Your task to perform on an android device: When is my next appointment? Image 0: 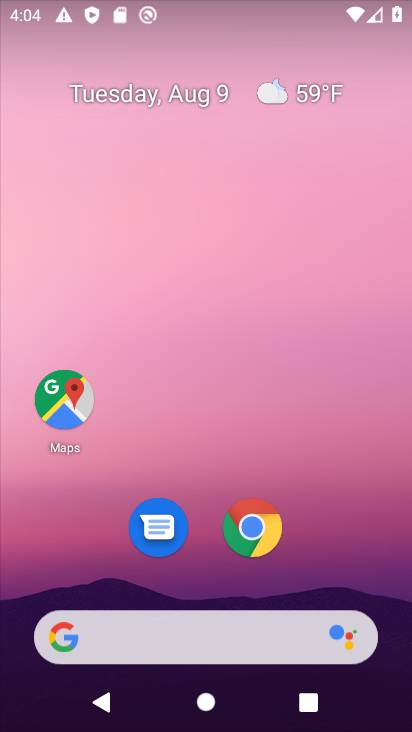
Step 0: click (92, 82)
Your task to perform on an android device: When is my next appointment? Image 1: 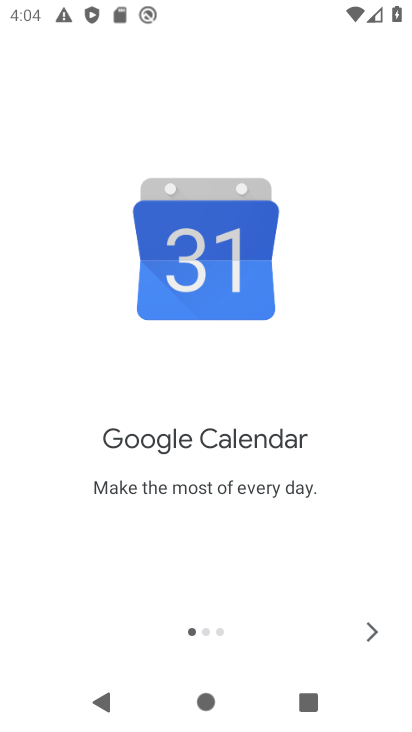
Step 1: click (368, 620)
Your task to perform on an android device: When is my next appointment? Image 2: 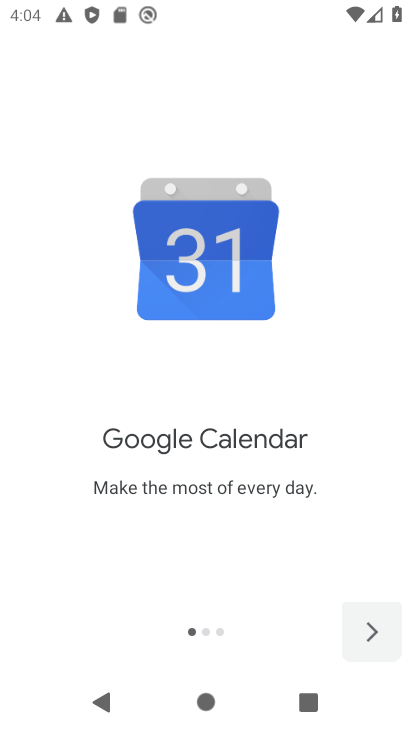
Step 2: click (368, 620)
Your task to perform on an android device: When is my next appointment? Image 3: 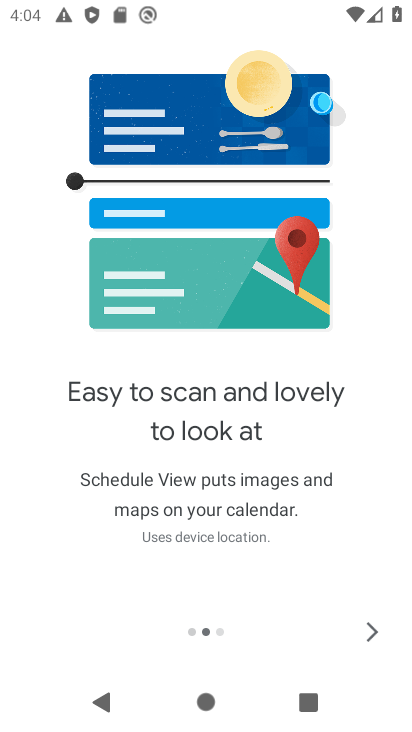
Step 3: click (368, 620)
Your task to perform on an android device: When is my next appointment? Image 4: 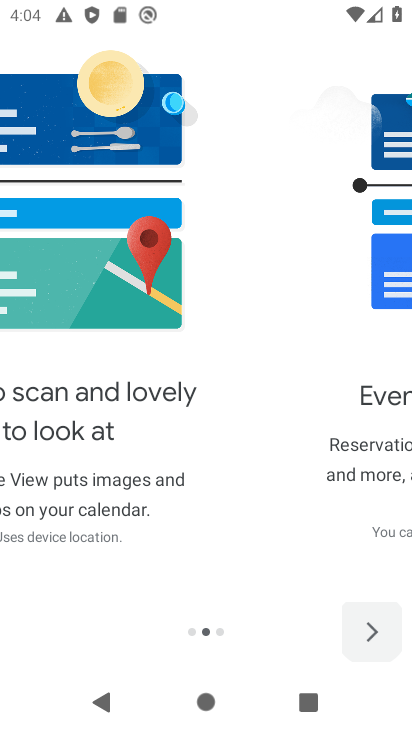
Step 4: click (368, 620)
Your task to perform on an android device: When is my next appointment? Image 5: 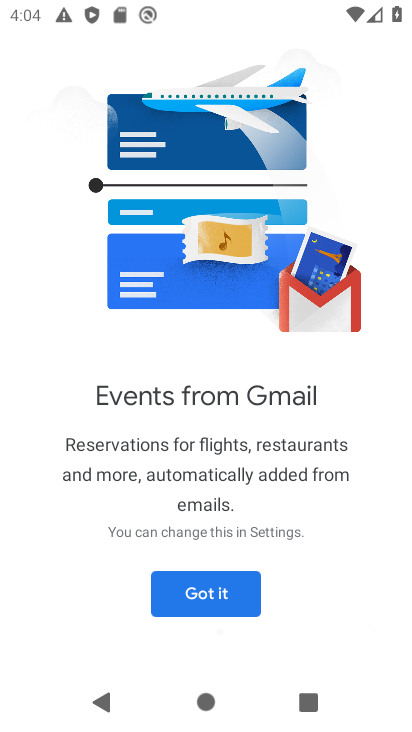
Step 5: click (368, 620)
Your task to perform on an android device: When is my next appointment? Image 6: 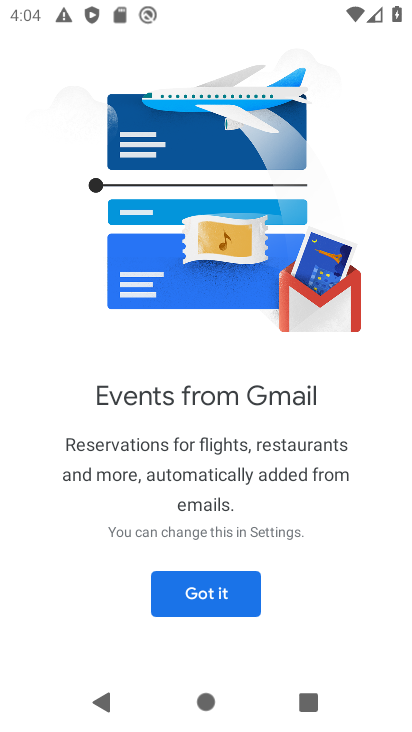
Step 6: click (178, 576)
Your task to perform on an android device: When is my next appointment? Image 7: 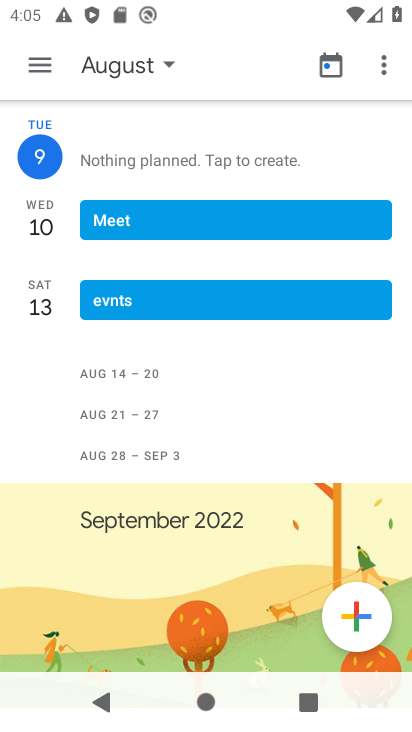
Step 7: task complete